Your task to perform on an android device: turn on data saver in the chrome app Image 0: 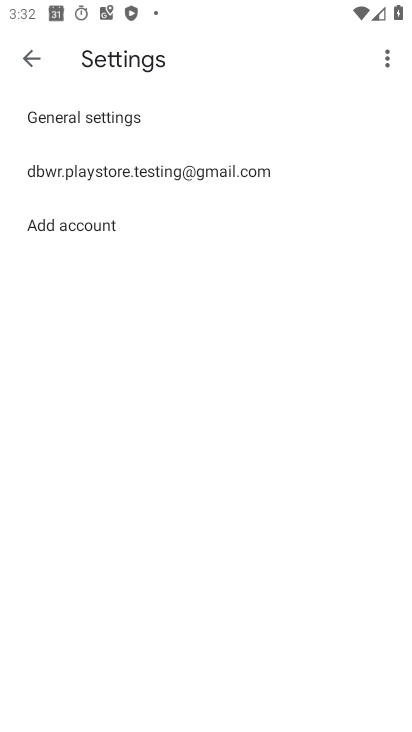
Step 0: click (409, 165)
Your task to perform on an android device: turn on data saver in the chrome app Image 1: 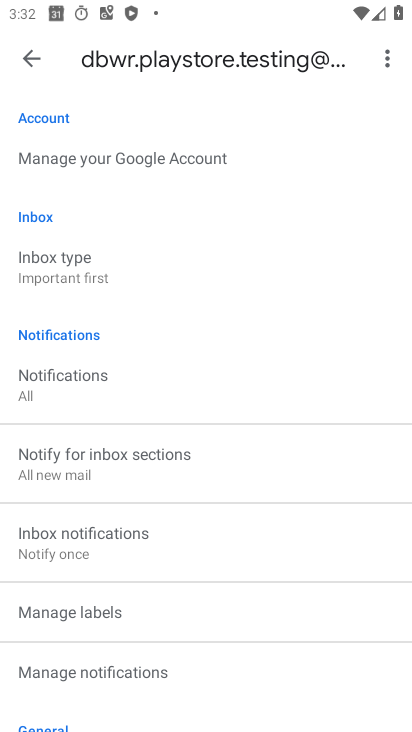
Step 1: press home button
Your task to perform on an android device: turn on data saver in the chrome app Image 2: 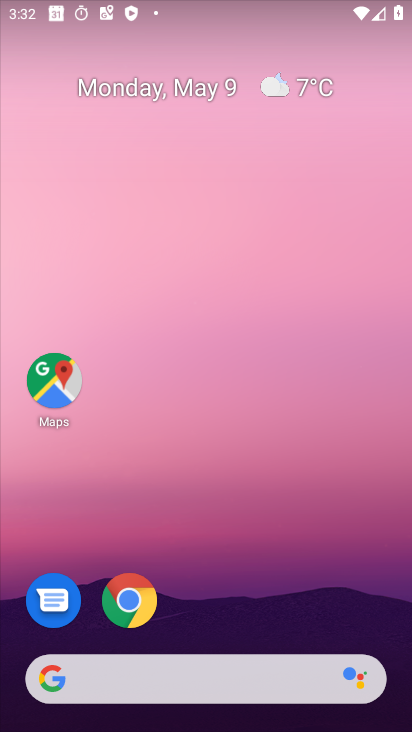
Step 2: click (119, 598)
Your task to perform on an android device: turn on data saver in the chrome app Image 3: 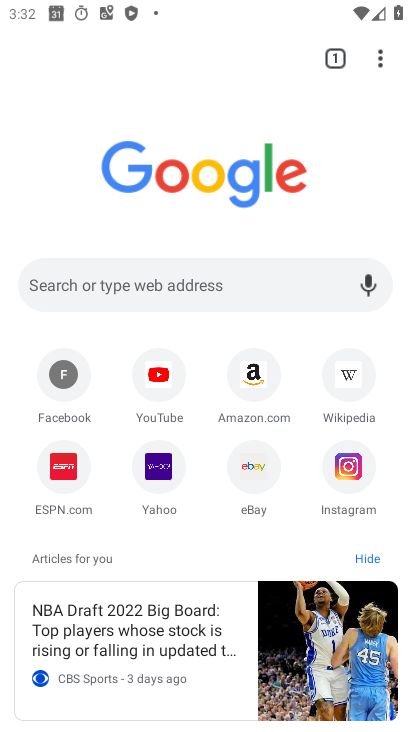
Step 3: drag from (381, 56) to (226, 497)
Your task to perform on an android device: turn on data saver in the chrome app Image 4: 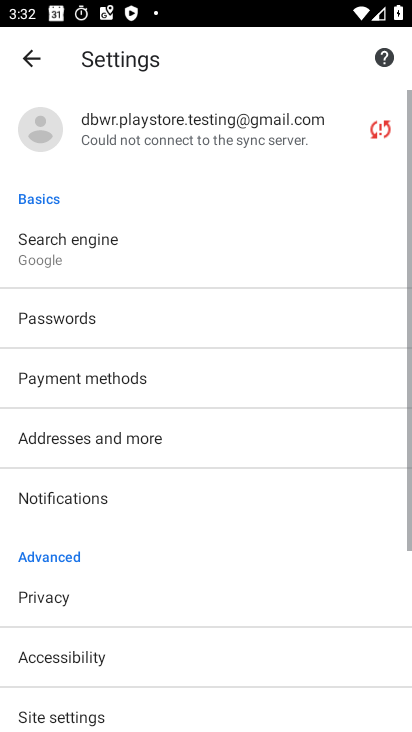
Step 4: drag from (237, 632) to (250, 191)
Your task to perform on an android device: turn on data saver in the chrome app Image 5: 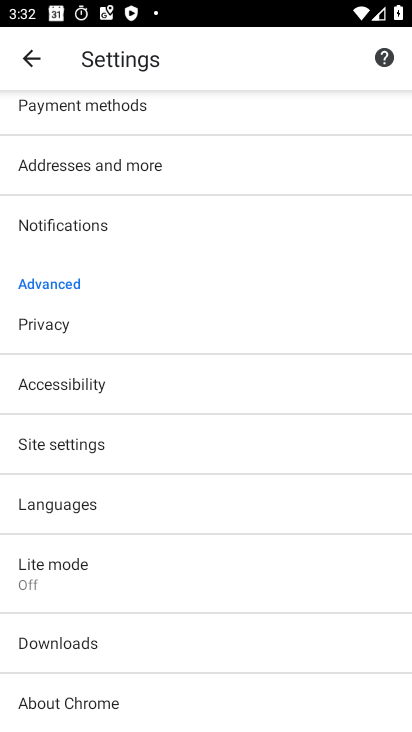
Step 5: click (124, 570)
Your task to perform on an android device: turn on data saver in the chrome app Image 6: 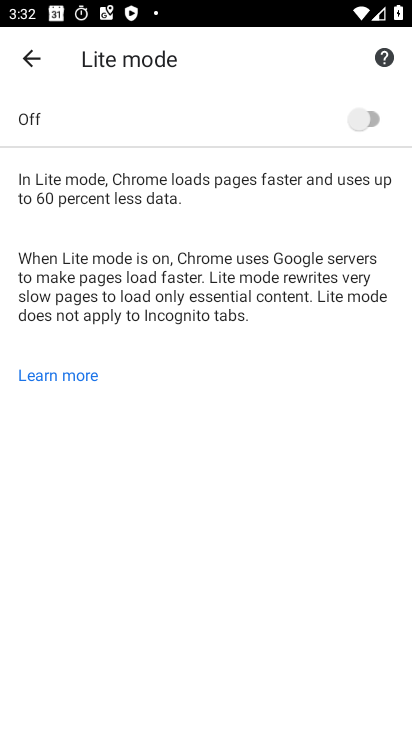
Step 6: click (363, 116)
Your task to perform on an android device: turn on data saver in the chrome app Image 7: 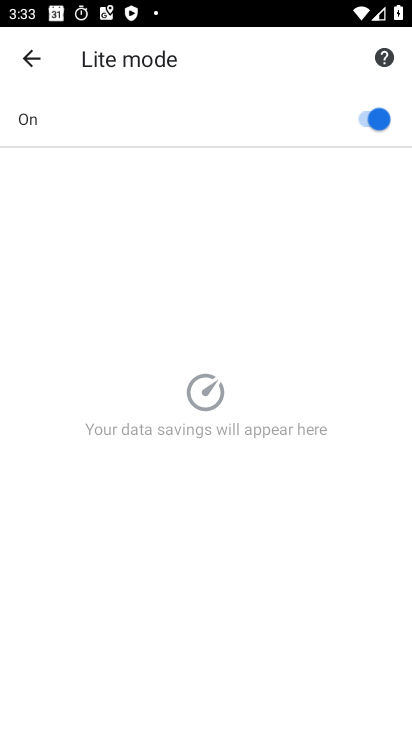
Step 7: task complete